Your task to perform on an android device: change alarm snooze length Image 0: 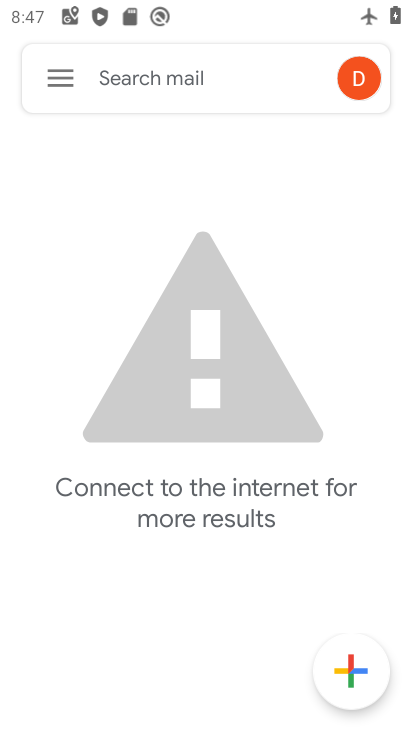
Step 0: press home button
Your task to perform on an android device: change alarm snooze length Image 1: 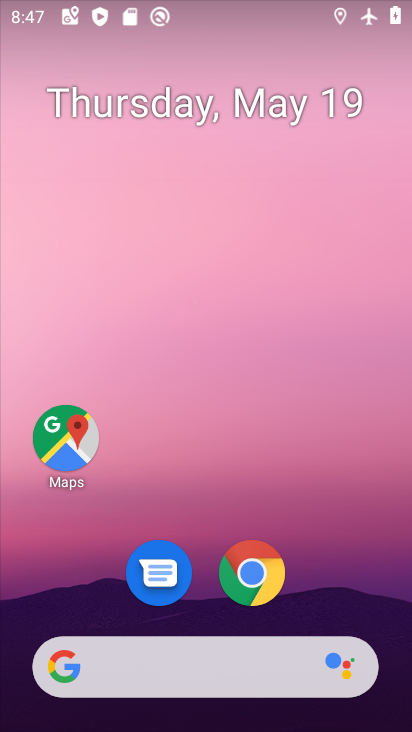
Step 1: drag from (362, 572) to (329, 5)
Your task to perform on an android device: change alarm snooze length Image 2: 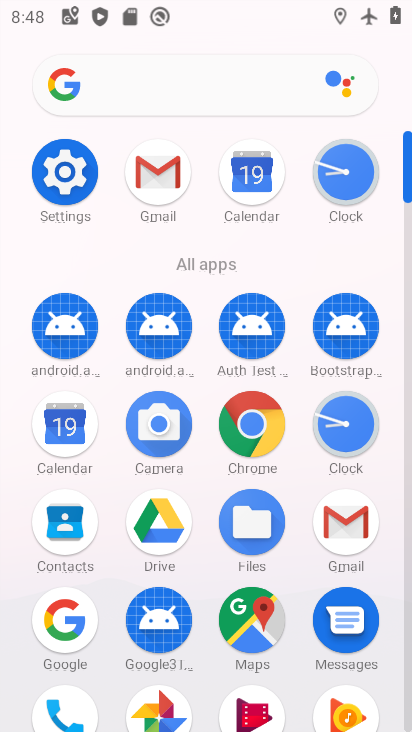
Step 2: click (345, 201)
Your task to perform on an android device: change alarm snooze length Image 3: 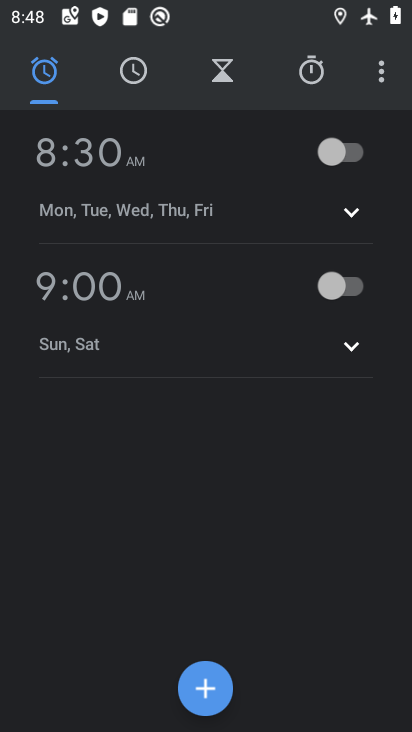
Step 3: click (383, 79)
Your task to perform on an android device: change alarm snooze length Image 4: 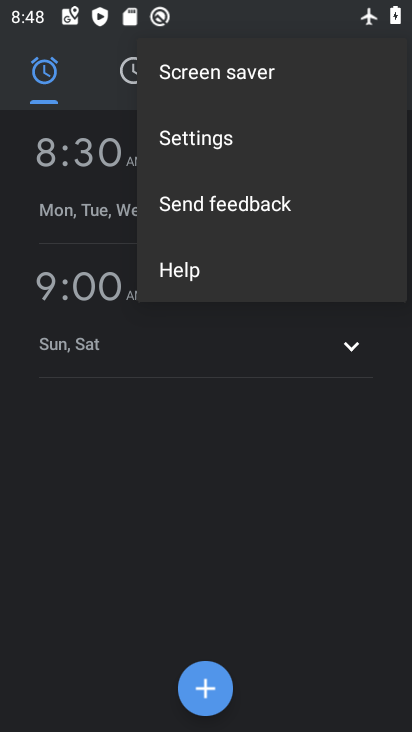
Step 4: click (199, 152)
Your task to perform on an android device: change alarm snooze length Image 5: 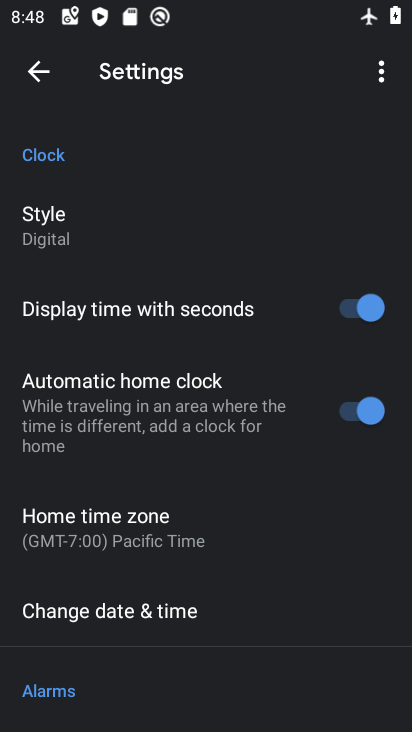
Step 5: drag from (173, 618) to (190, 85)
Your task to perform on an android device: change alarm snooze length Image 6: 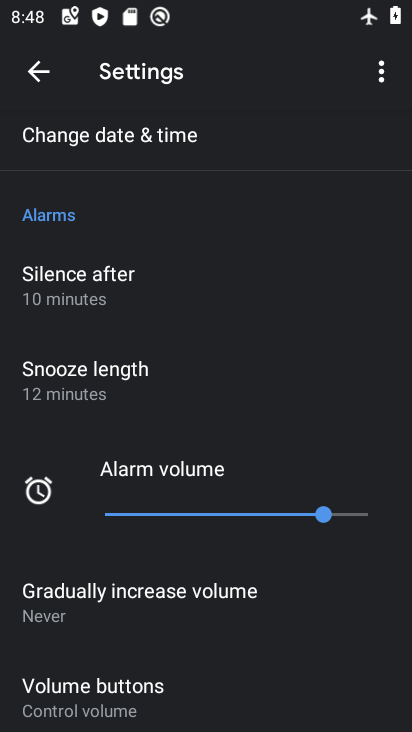
Step 6: click (63, 394)
Your task to perform on an android device: change alarm snooze length Image 7: 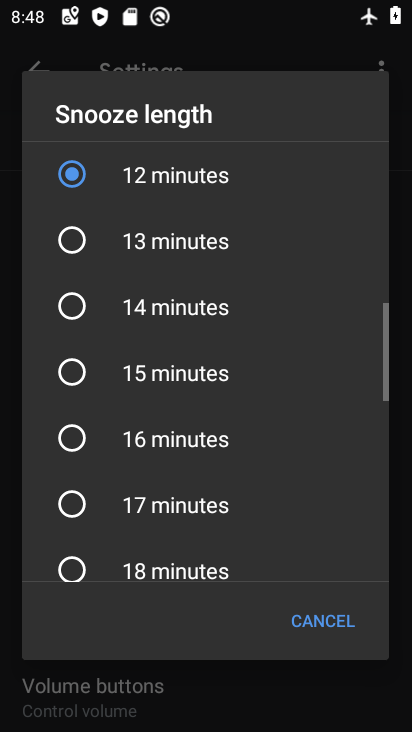
Step 7: click (70, 247)
Your task to perform on an android device: change alarm snooze length Image 8: 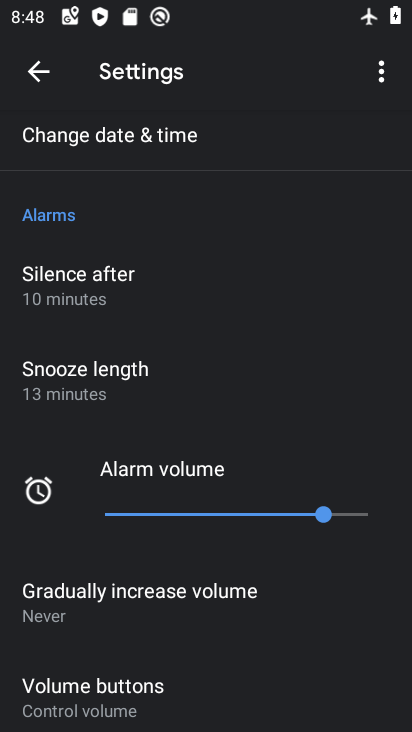
Step 8: task complete